Your task to perform on an android device: open app "LiveIn - Share Your Moment" Image 0: 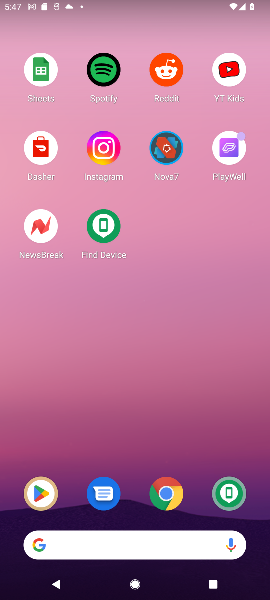
Step 0: drag from (155, 573) to (125, 226)
Your task to perform on an android device: open app "LiveIn - Share Your Moment" Image 1: 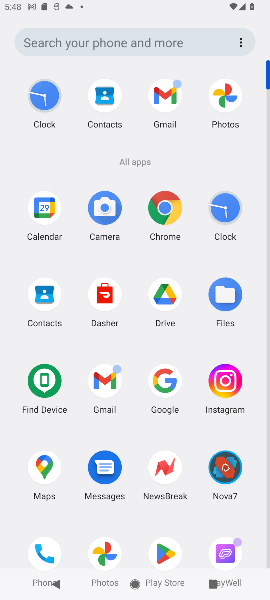
Step 1: click (165, 551)
Your task to perform on an android device: open app "LiveIn - Share Your Moment" Image 2: 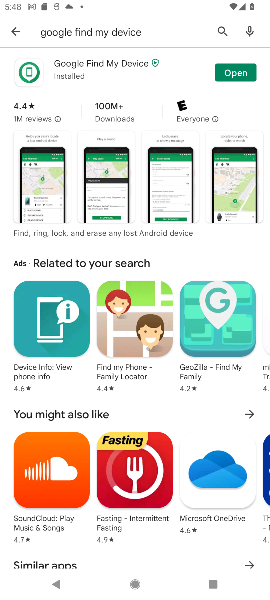
Step 2: click (224, 31)
Your task to perform on an android device: open app "LiveIn - Share Your Moment" Image 3: 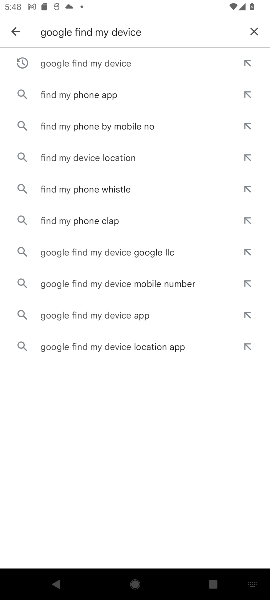
Step 3: click (252, 29)
Your task to perform on an android device: open app "LiveIn - Share Your Moment" Image 4: 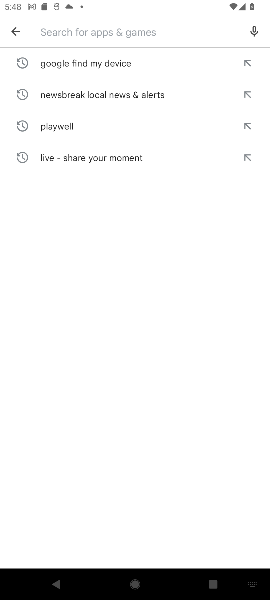
Step 4: type "LiveIn - Share Your Moment"
Your task to perform on an android device: open app "LiveIn - Share Your Moment" Image 5: 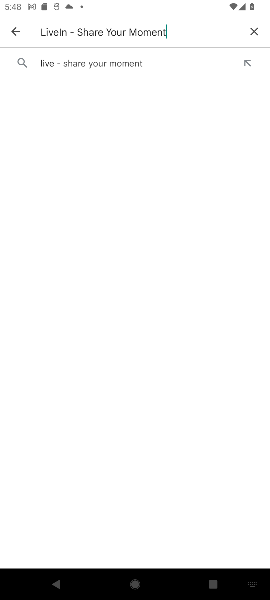
Step 5: click (57, 63)
Your task to perform on an android device: open app "LiveIn - Share Your Moment" Image 6: 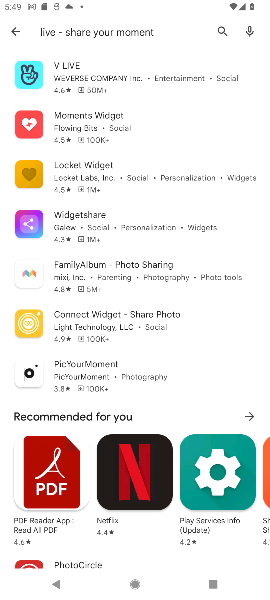
Step 6: click (73, 71)
Your task to perform on an android device: open app "LiveIn - Share Your Moment" Image 7: 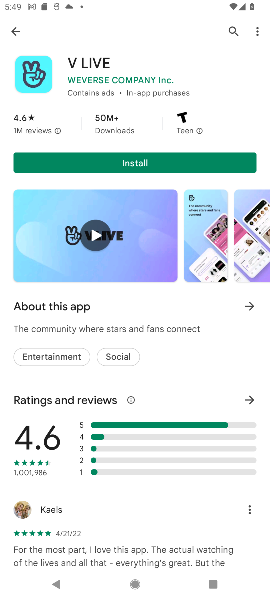
Step 7: click (235, 29)
Your task to perform on an android device: open app "LiveIn - Share Your Moment" Image 8: 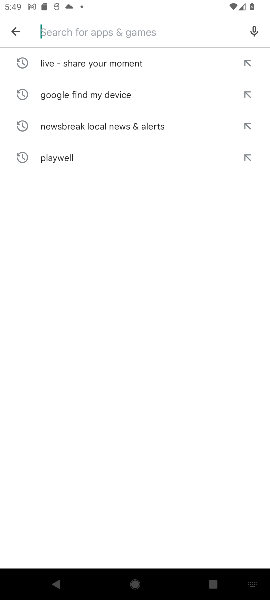
Step 8: type "Livein"
Your task to perform on an android device: open app "LiveIn - Share Your Moment" Image 9: 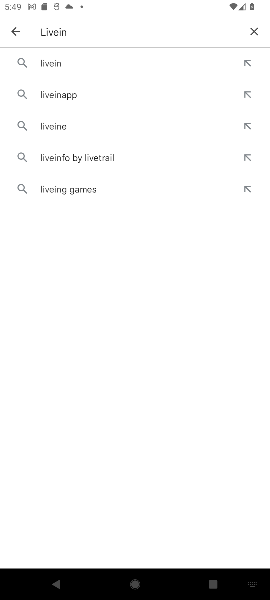
Step 9: click (51, 63)
Your task to perform on an android device: open app "LiveIn - Share Your Moment" Image 10: 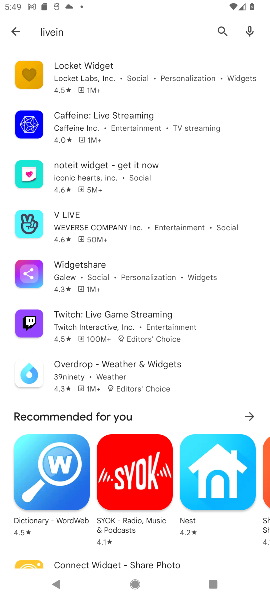
Step 10: task complete